Your task to perform on an android device: Google the capital of Panama Image 0: 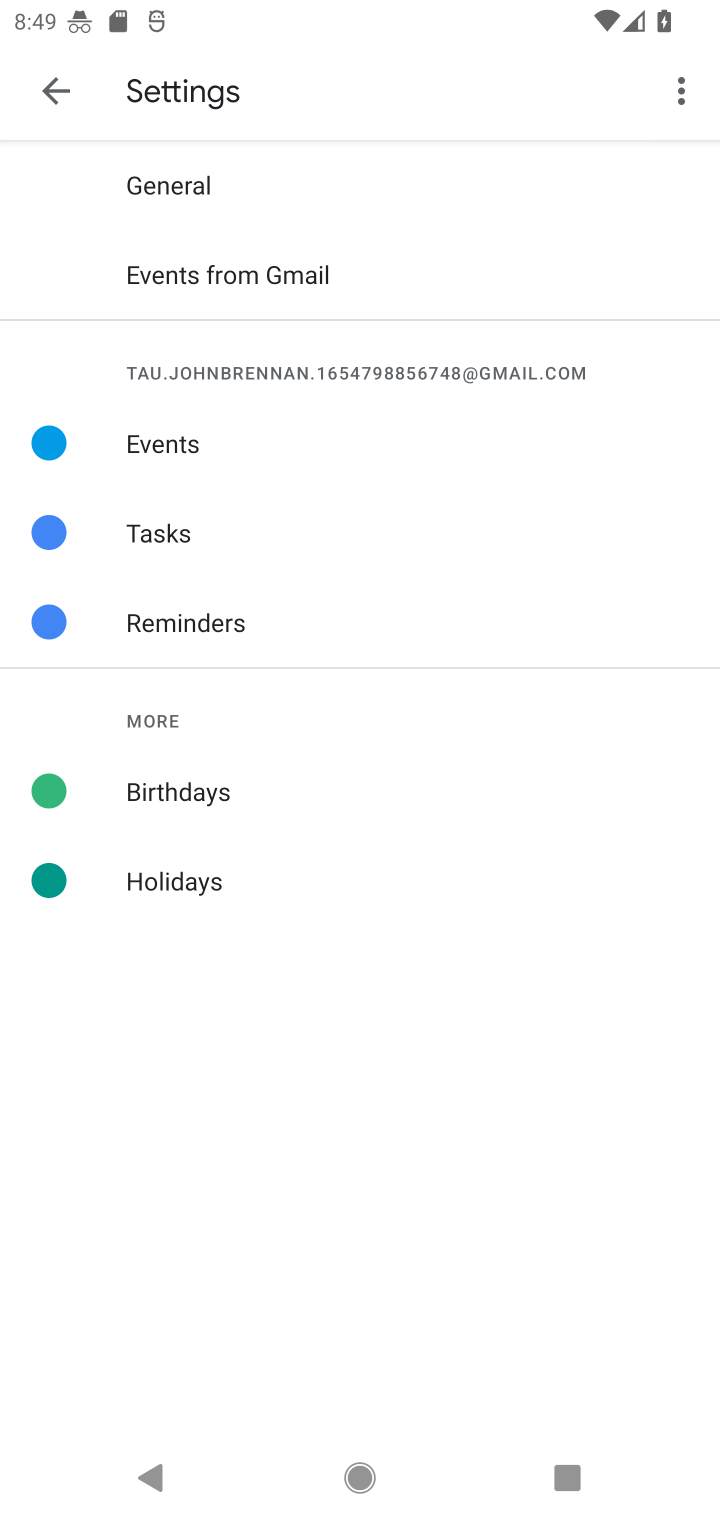
Step 0: press home button
Your task to perform on an android device: Google the capital of Panama Image 1: 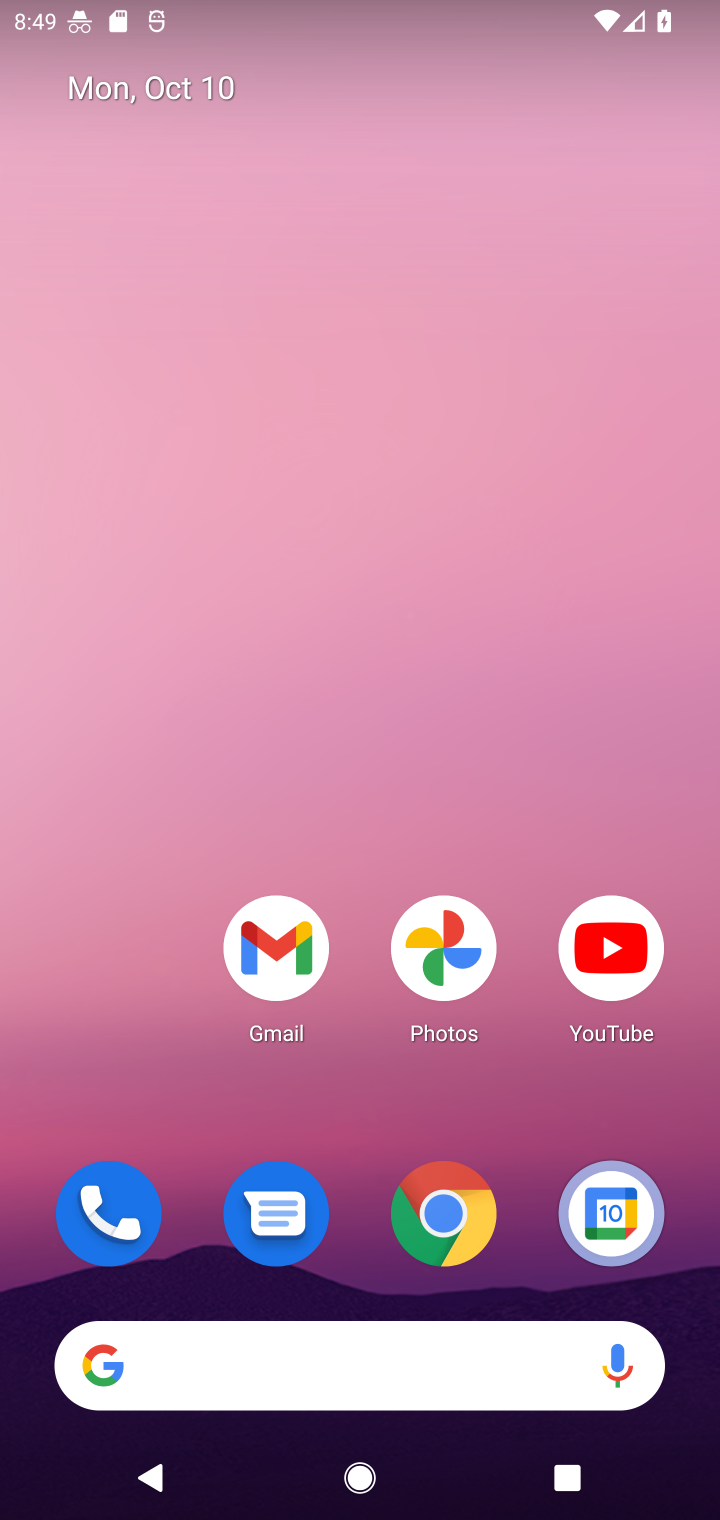
Step 1: click (320, 1353)
Your task to perform on an android device: Google the capital of Panama Image 2: 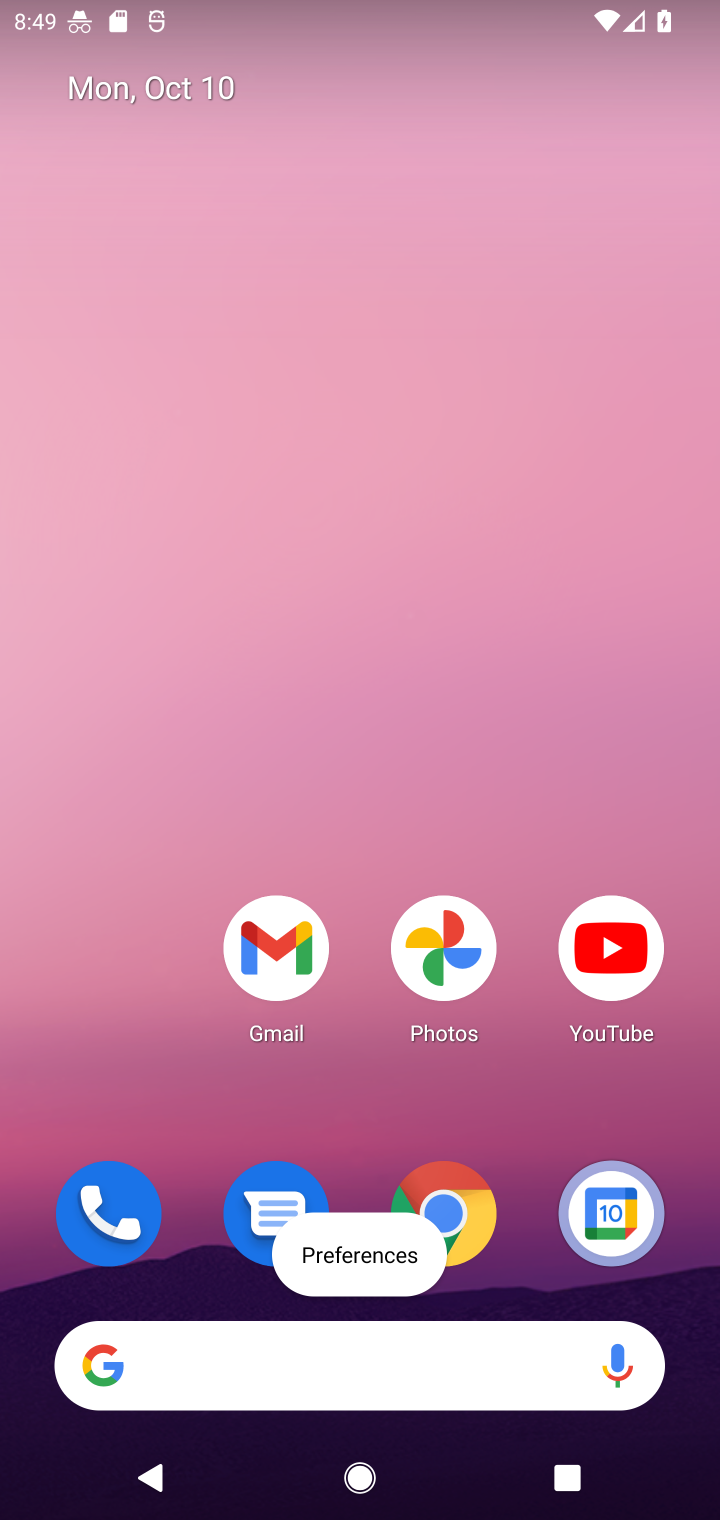
Step 2: click (278, 1360)
Your task to perform on an android device: Google the capital of Panama Image 3: 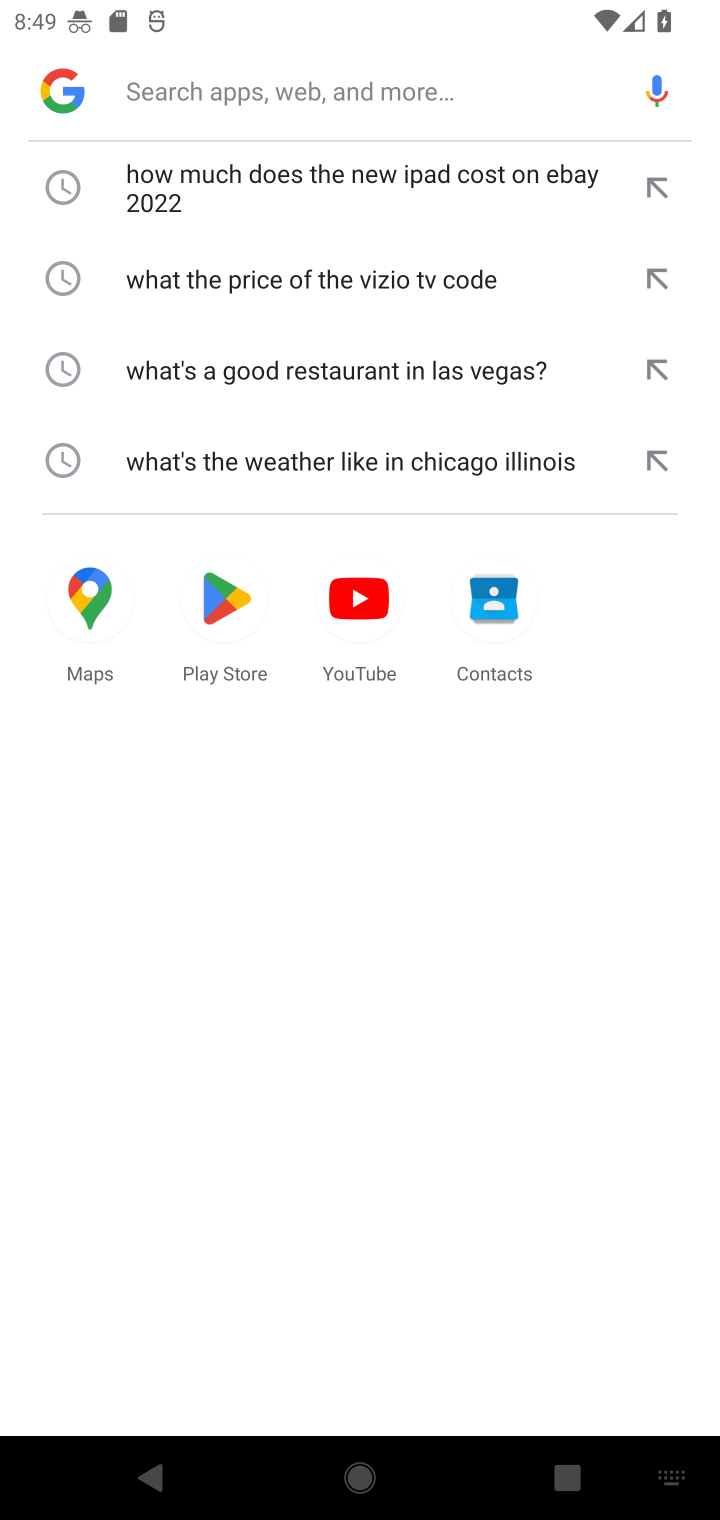
Step 3: click (221, 87)
Your task to perform on an android device: Google the capital of Panama Image 4: 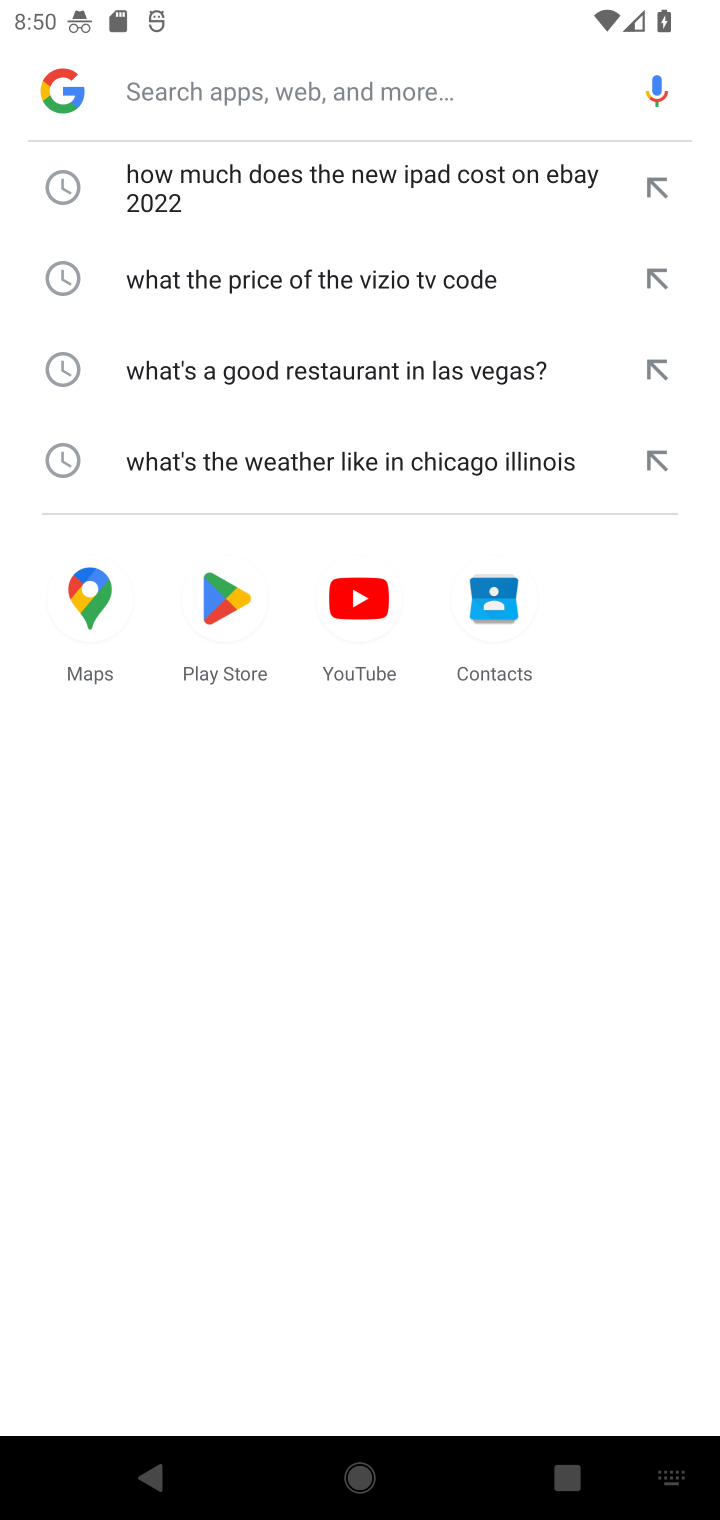
Step 4: type "capital of Panama"
Your task to perform on an android device: Google the capital of Panama Image 5: 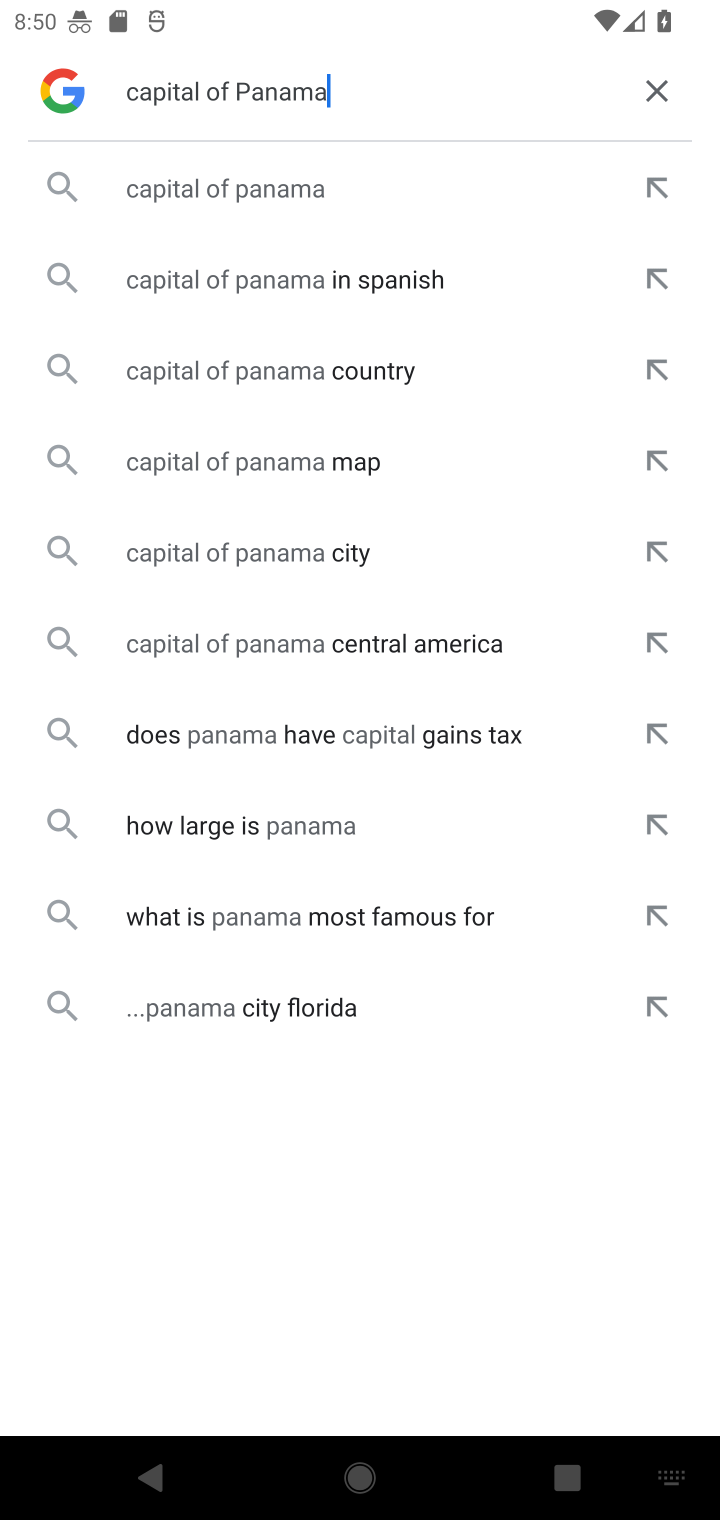
Step 5: click (280, 178)
Your task to perform on an android device: Google the capital of Panama Image 6: 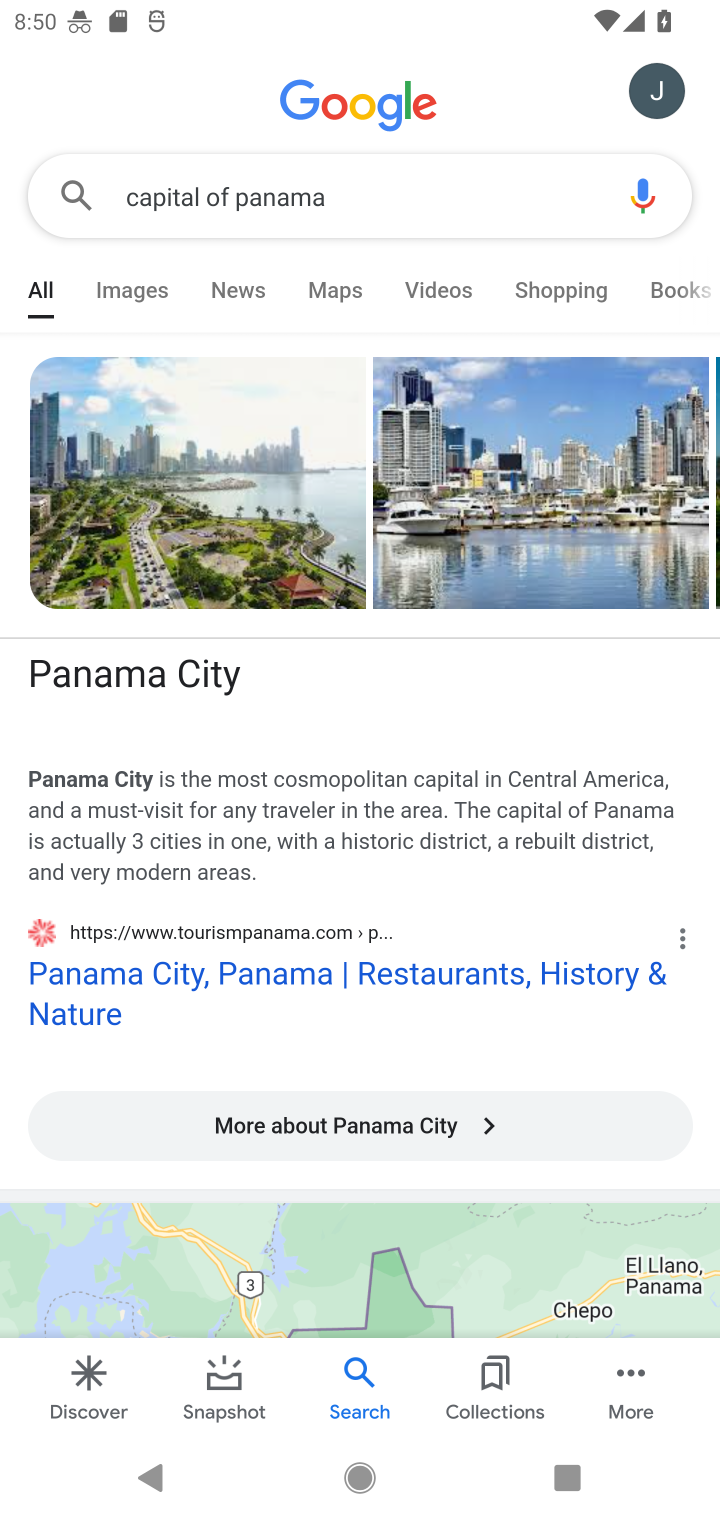
Step 6: task complete